Your task to perform on an android device: Open the map Image 0: 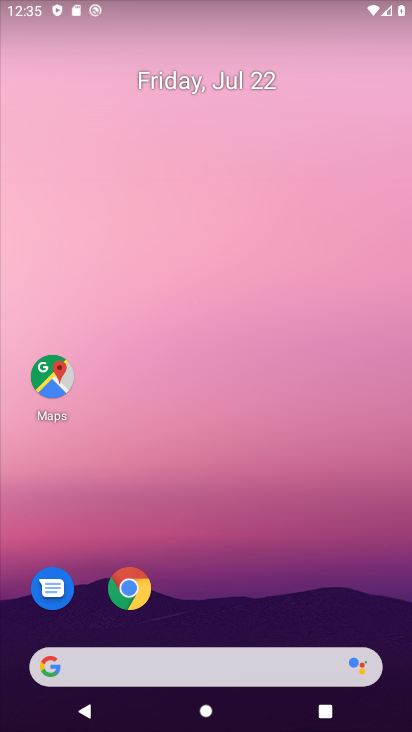
Step 0: click (68, 371)
Your task to perform on an android device: Open the map Image 1: 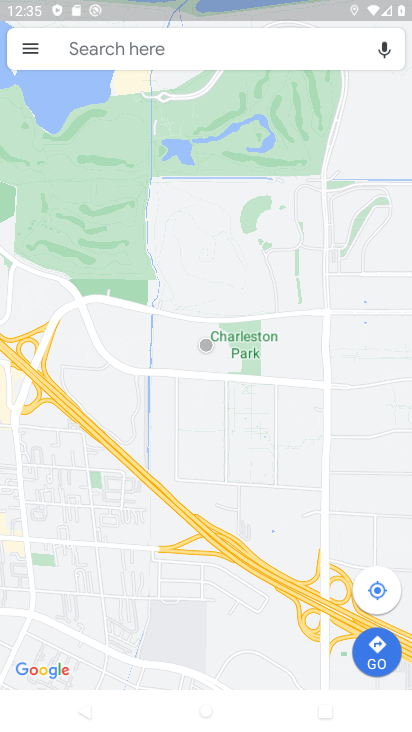
Step 1: task complete